Your task to perform on an android device: empty trash in google photos Image 0: 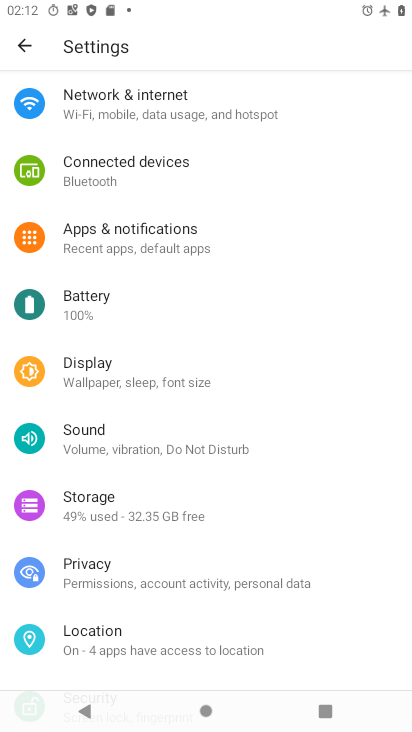
Step 0: press home button
Your task to perform on an android device: empty trash in google photos Image 1: 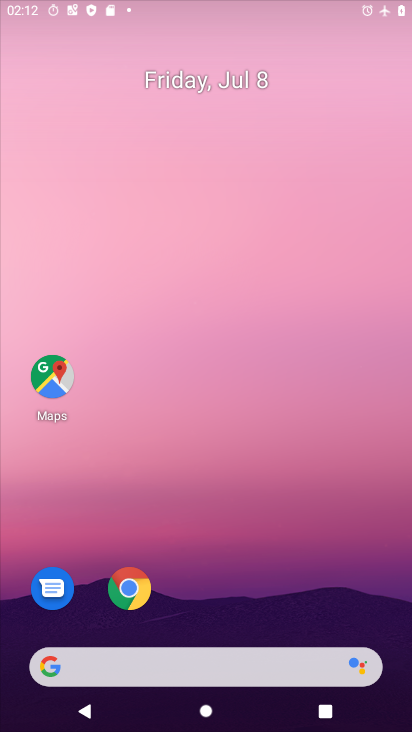
Step 1: drag from (169, 645) to (188, 210)
Your task to perform on an android device: empty trash in google photos Image 2: 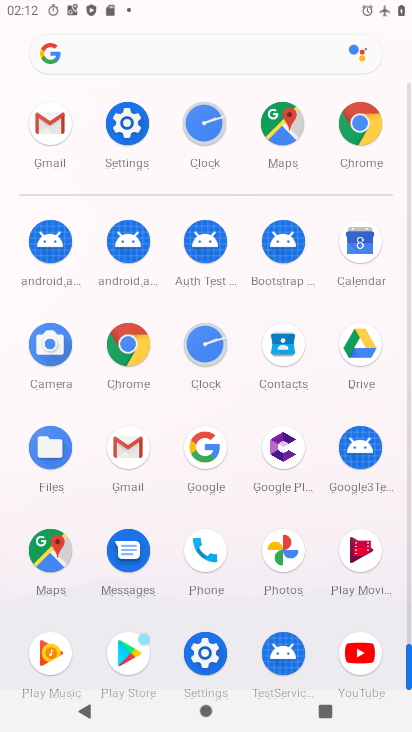
Step 2: click (269, 552)
Your task to perform on an android device: empty trash in google photos Image 3: 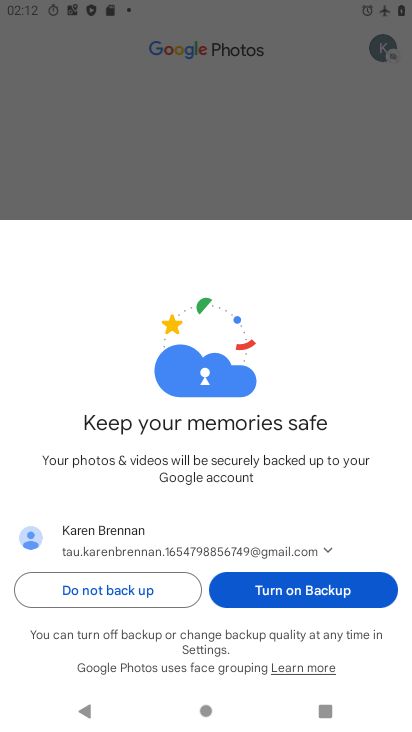
Step 3: click (319, 127)
Your task to perform on an android device: empty trash in google photos Image 4: 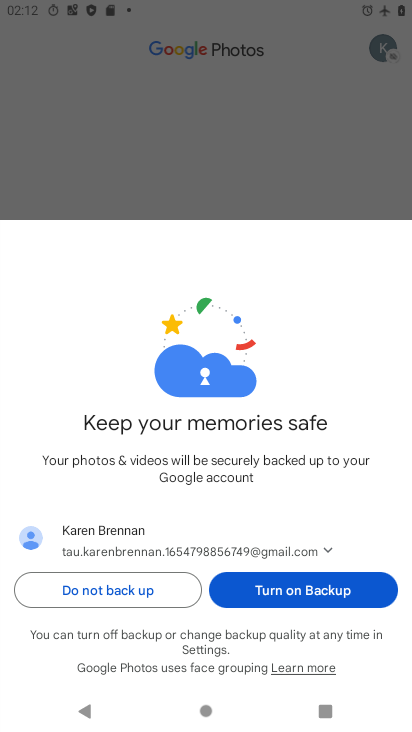
Step 4: click (219, 592)
Your task to perform on an android device: empty trash in google photos Image 5: 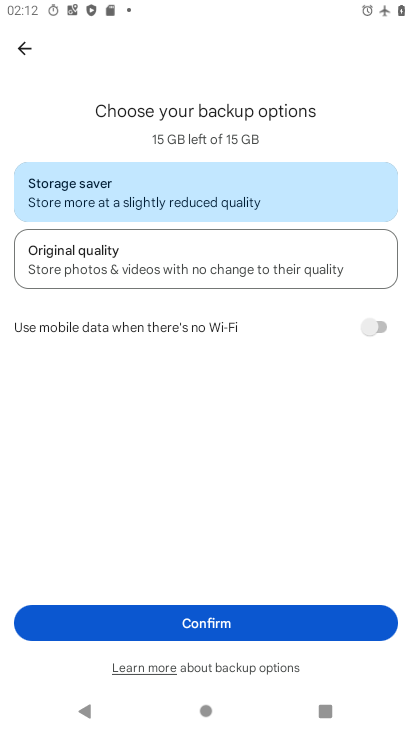
Step 5: click (240, 637)
Your task to perform on an android device: empty trash in google photos Image 6: 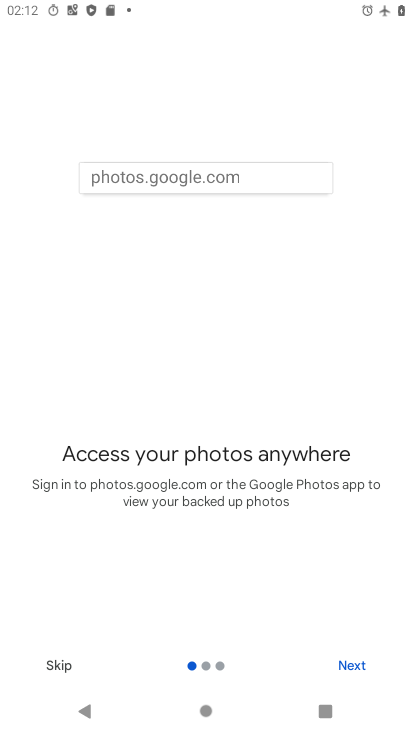
Step 6: click (55, 654)
Your task to perform on an android device: empty trash in google photos Image 7: 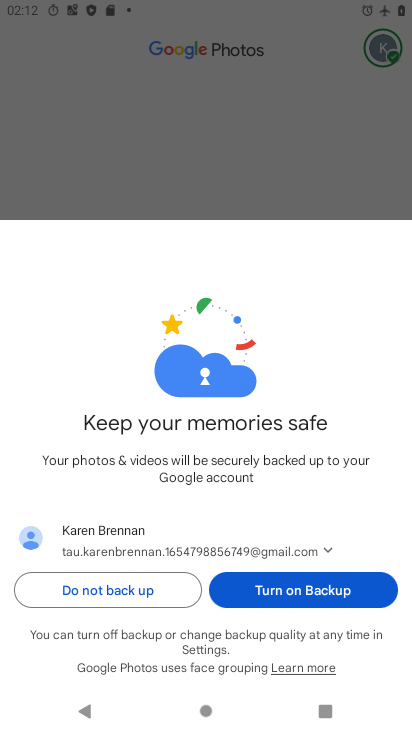
Step 7: click (96, 585)
Your task to perform on an android device: empty trash in google photos Image 8: 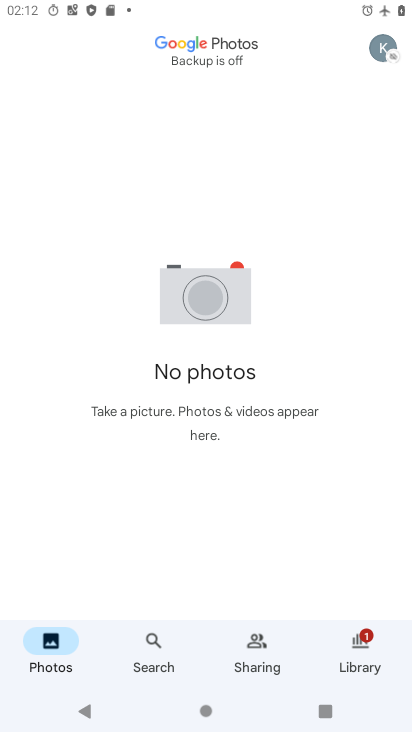
Step 8: click (317, 646)
Your task to perform on an android device: empty trash in google photos Image 9: 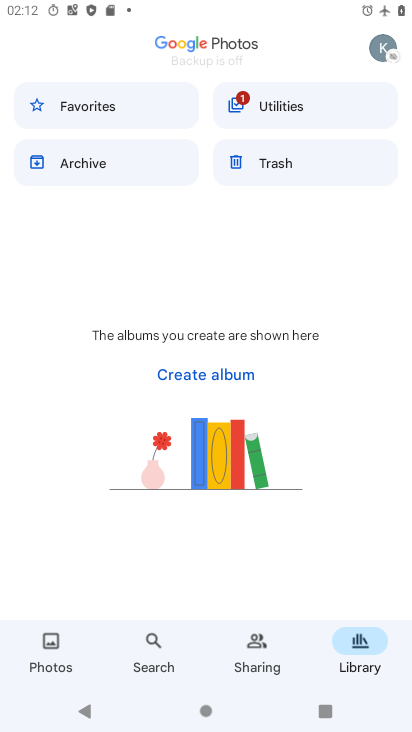
Step 9: click (295, 150)
Your task to perform on an android device: empty trash in google photos Image 10: 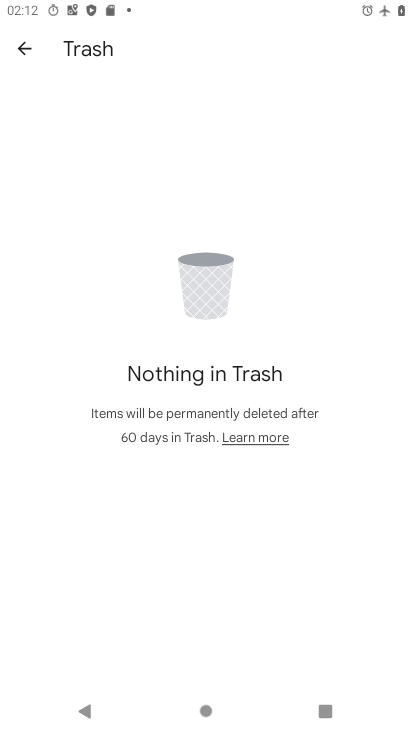
Step 10: task complete